Your task to perform on an android device: Go to Android settings Image 0: 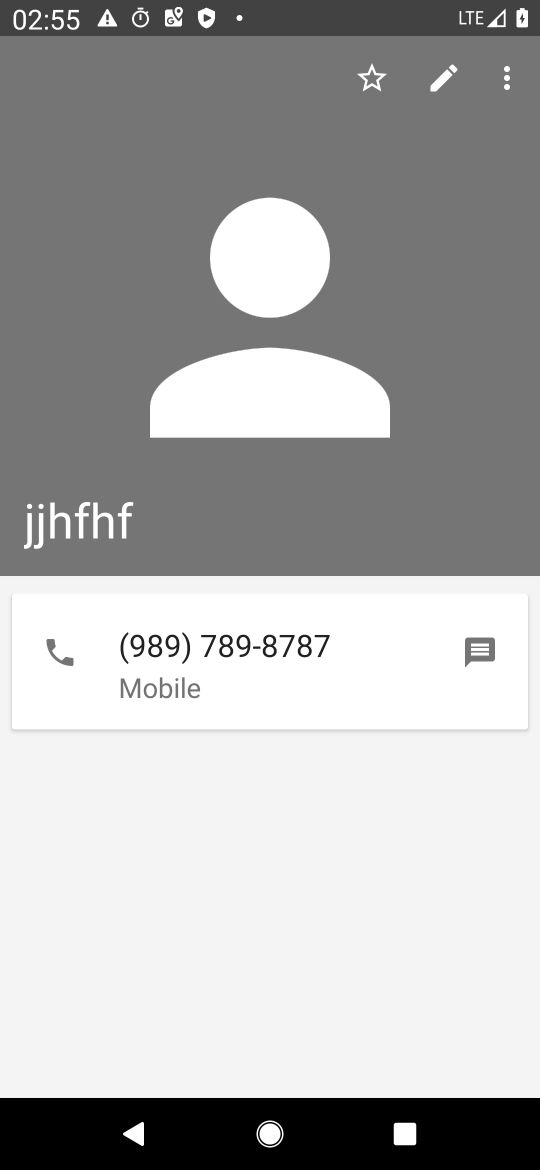
Step 0: press home button
Your task to perform on an android device: Go to Android settings Image 1: 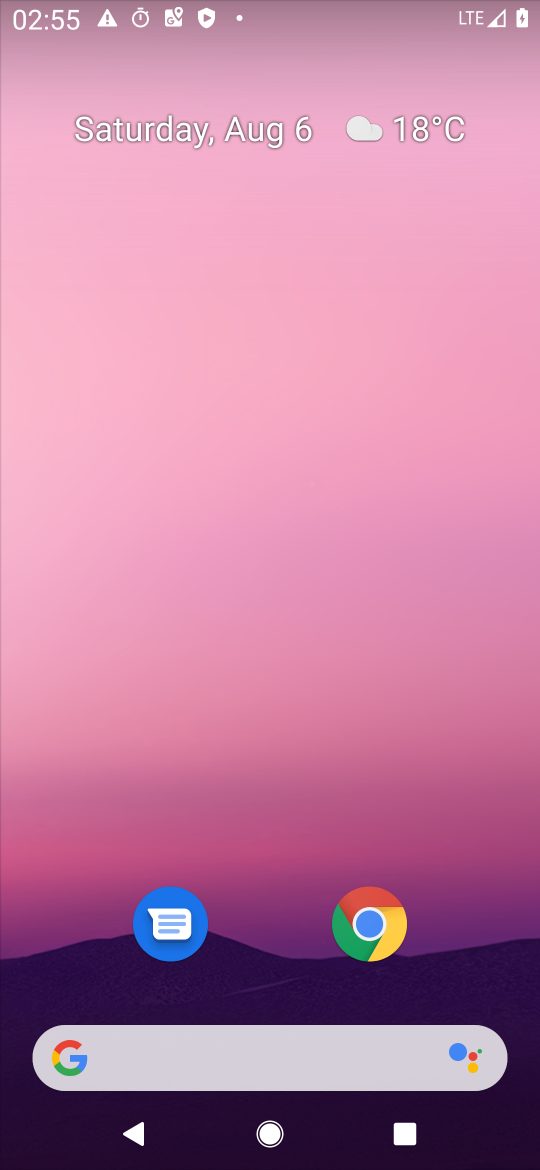
Step 1: drag from (243, 1057) to (335, 182)
Your task to perform on an android device: Go to Android settings Image 2: 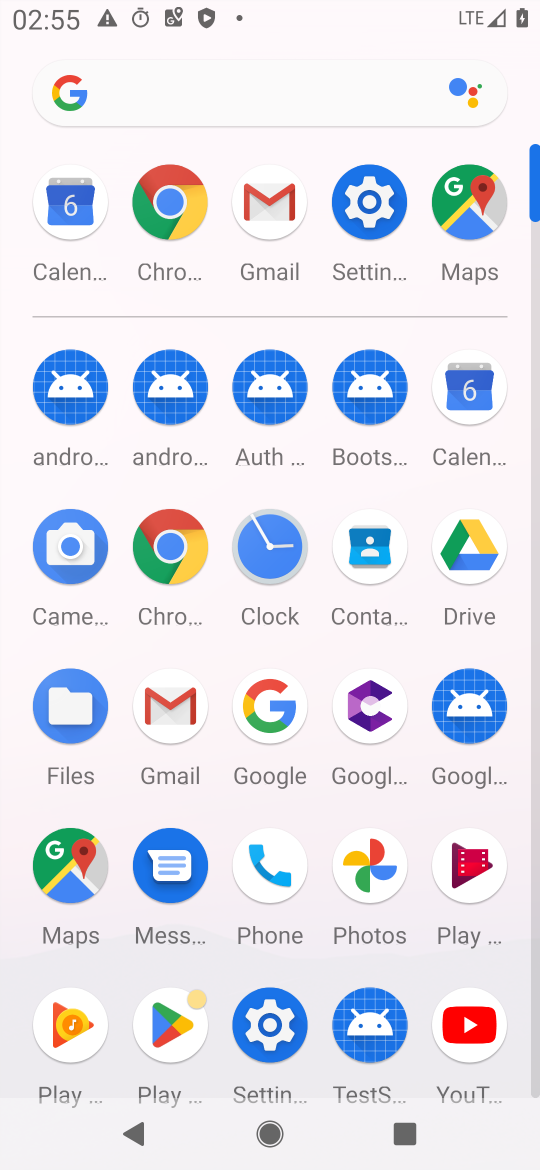
Step 2: click (354, 199)
Your task to perform on an android device: Go to Android settings Image 3: 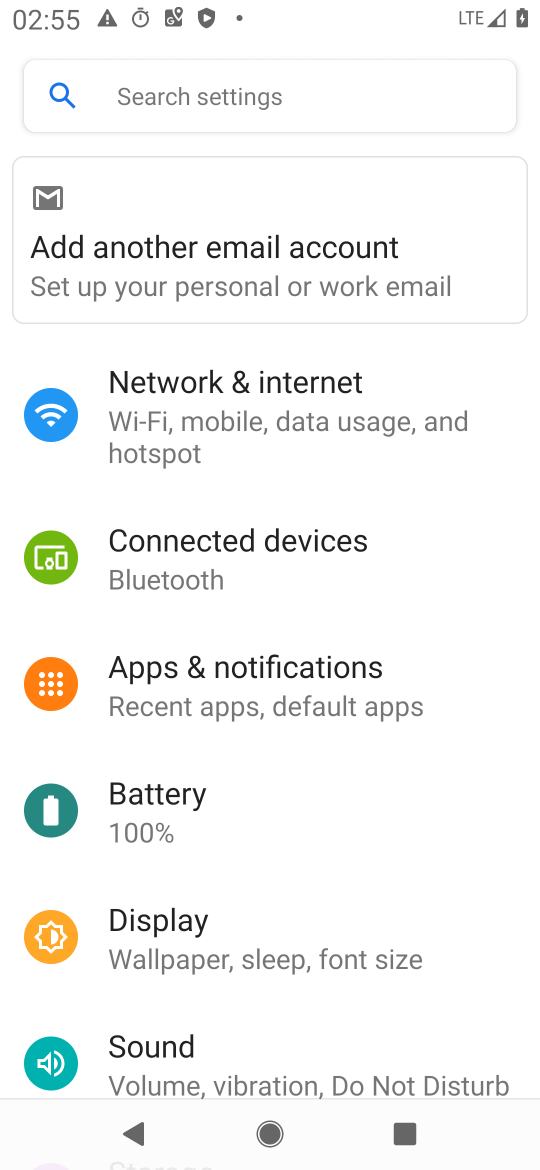
Step 3: drag from (377, 1039) to (399, 128)
Your task to perform on an android device: Go to Android settings Image 4: 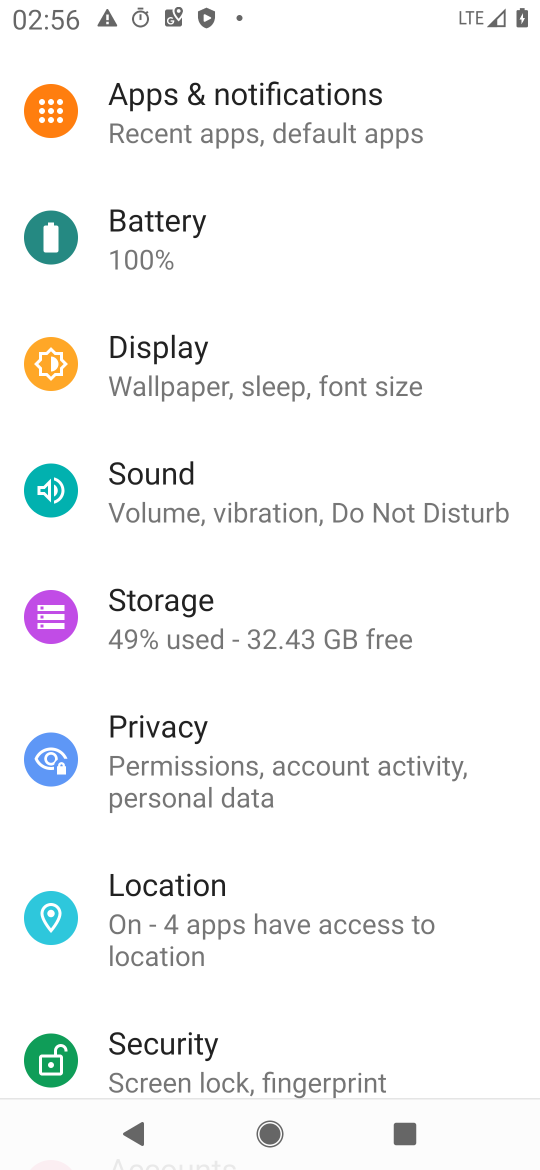
Step 4: drag from (452, 1055) to (512, 113)
Your task to perform on an android device: Go to Android settings Image 5: 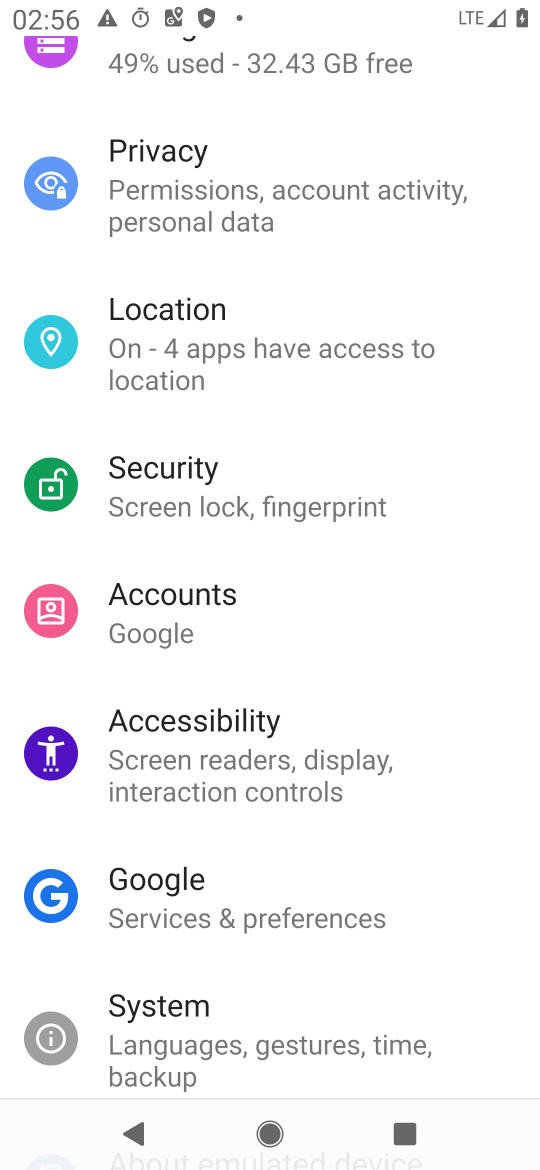
Step 5: drag from (364, 1056) to (408, 356)
Your task to perform on an android device: Go to Android settings Image 6: 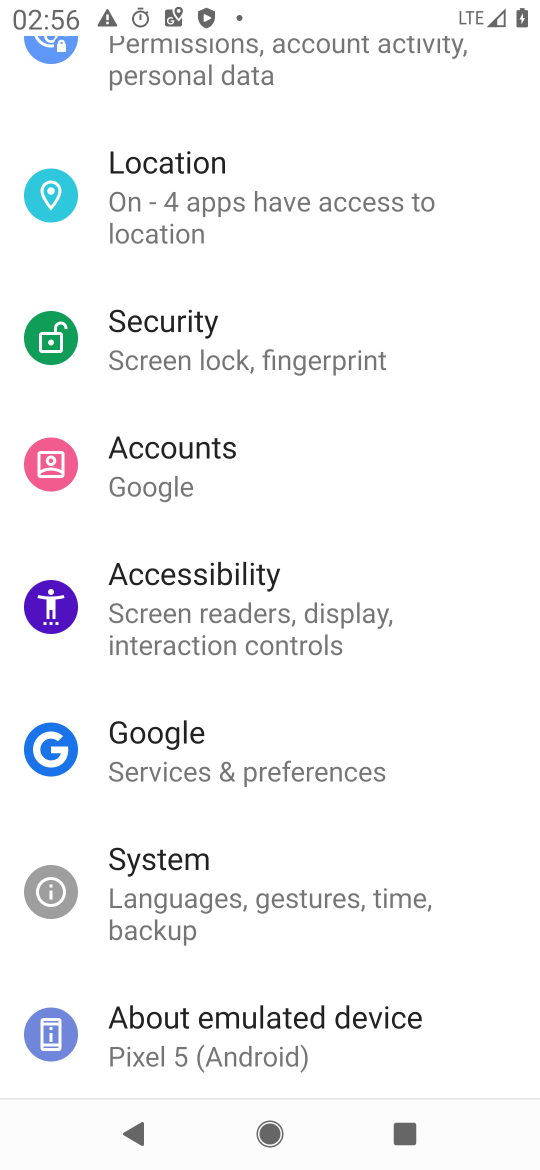
Step 6: click (254, 1033)
Your task to perform on an android device: Go to Android settings Image 7: 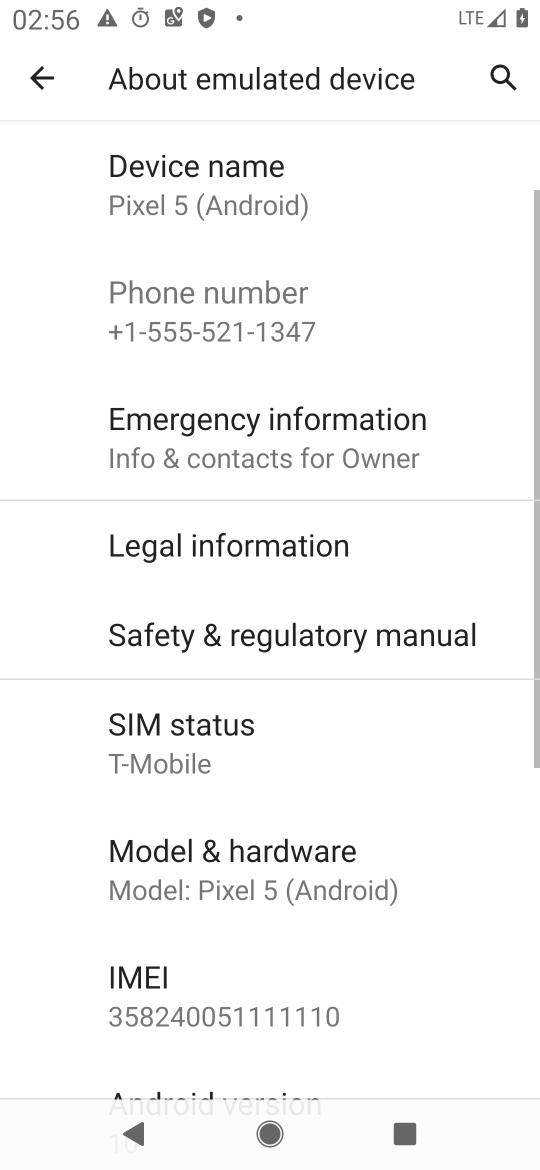
Step 7: task complete